Your task to perform on an android device: Do I have any events today? Image 0: 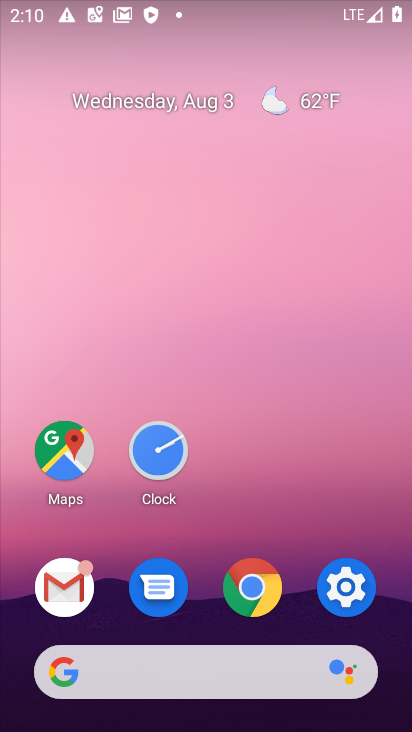
Step 0: drag from (298, 597) to (254, 33)
Your task to perform on an android device: Do I have any events today? Image 1: 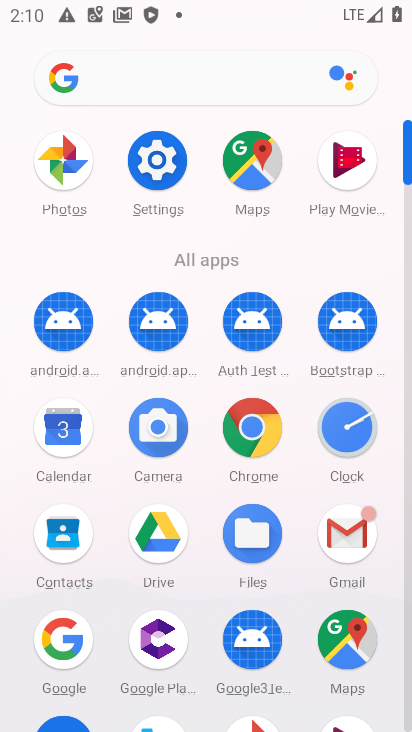
Step 1: click (56, 416)
Your task to perform on an android device: Do I have any events today? Image 2: 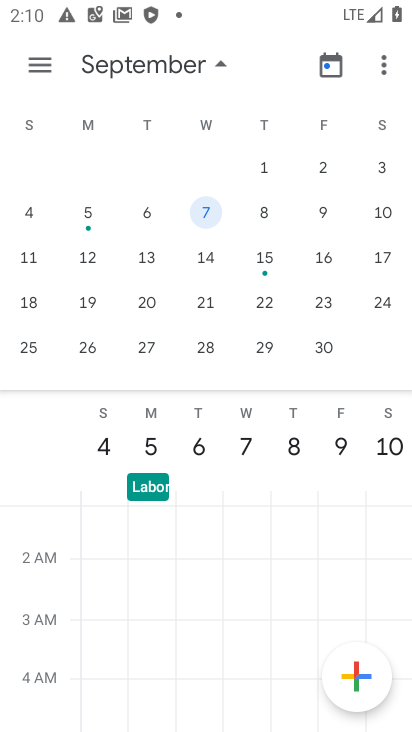
Step 2: drag from (51, 233) to (407, 219)
Your task to perform on an android device: Do I have any events today? Image 3: 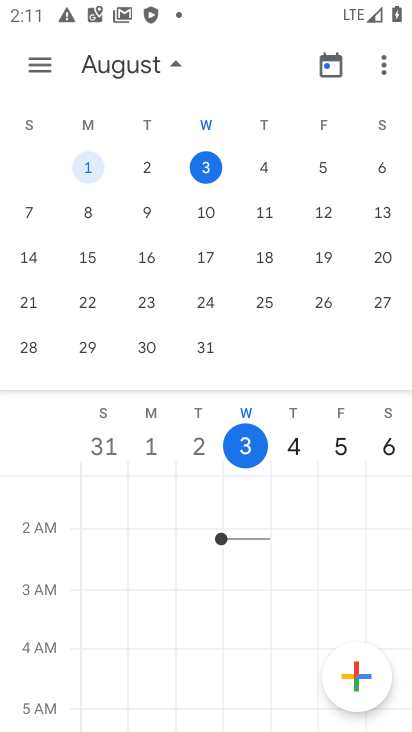
Step 3: click (203, 160)
Your task to perform on an android device: Do I have any events today? Image 4: 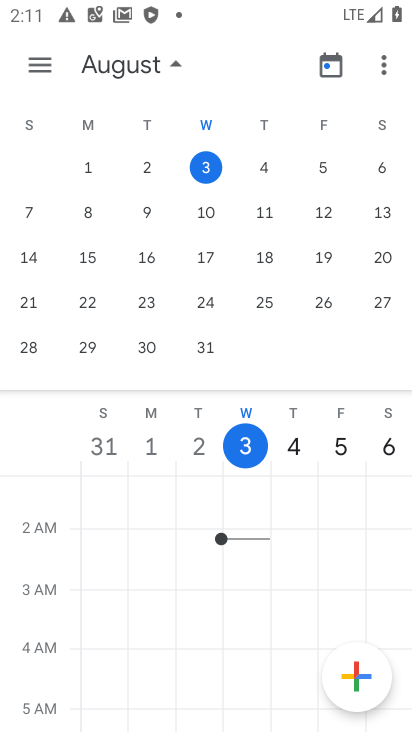
Step 4: click (203, 160)
Your task to perform on an android device: Do I have any events today? Image 5: 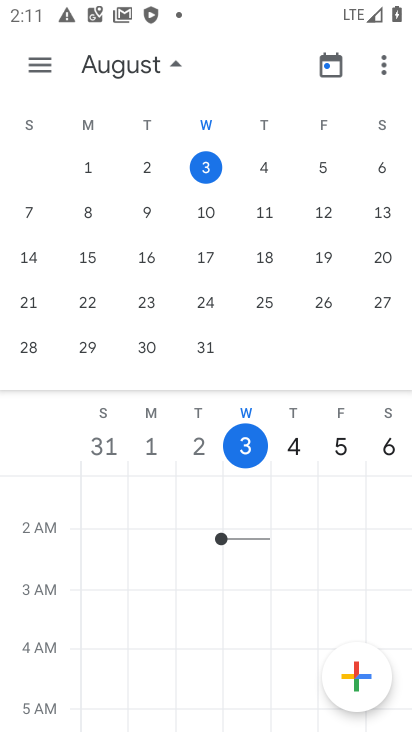
Step 5: click (254, 442)
Your task to perform on an android device: Do I have any events today? Image 6: 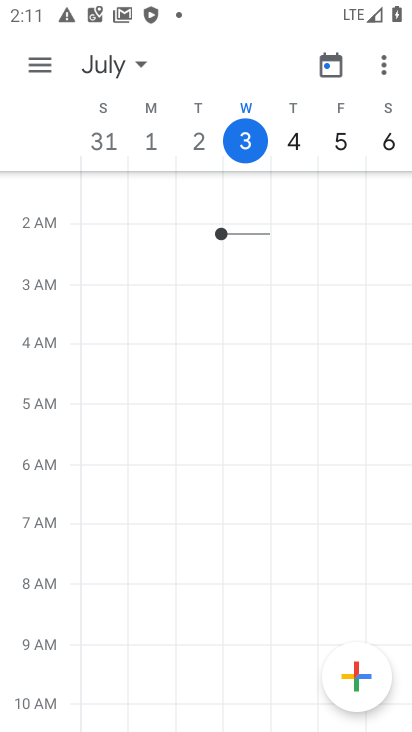
Step 6: click (242, 137)
Your task to perform on an android device: Do I have any events today? Image 7: 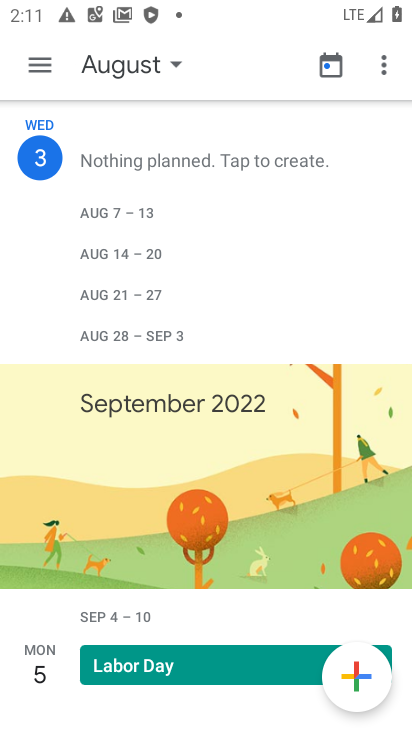
Step 7: click (39, 152)
Your task to perform on an android device: Do I have any events today? Image 8: 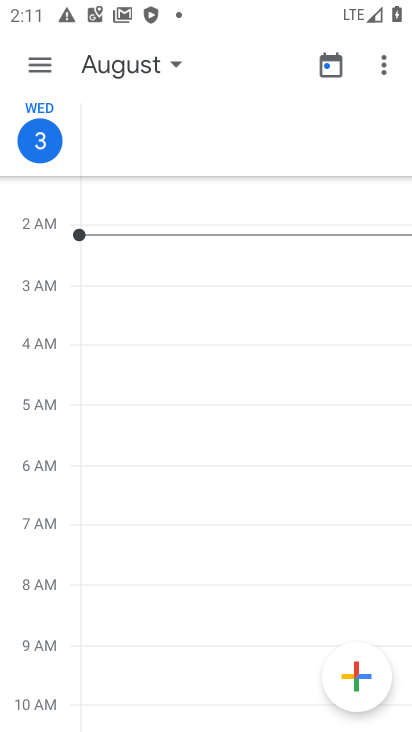
Step 8: task complete